Your task to perform on an android device: Search for logitech g pro on bestbuy, select the first entry, add it to the cart, then select checkout. Image 0: 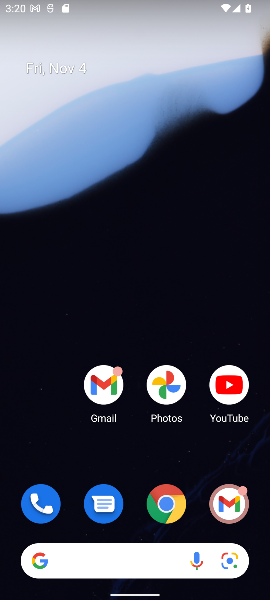
Step 0: click (166, 509)
Your task to perform on an android device: Search for logitech g pro on bestbuy, select the first entry, add it to the cart, then select checkout. Image 1: 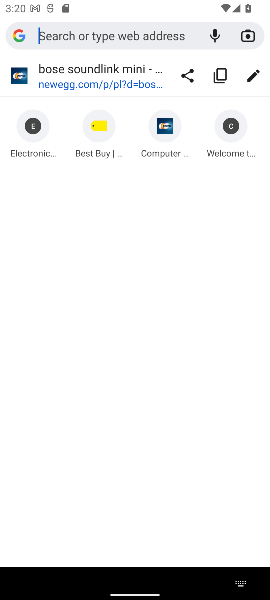
Step 1: click (102, 132)
Your task to perform on an android device: Search for logitech g pro on bestbuy, select the first entry, add it to the cart, then select checkout. Image 2: 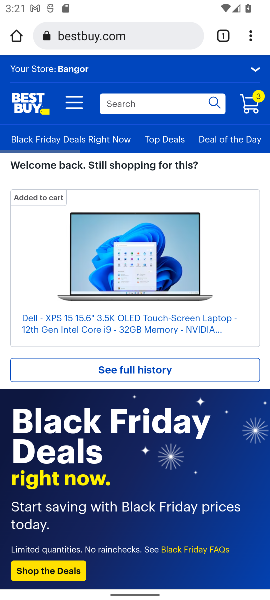
Step 2: click (140, 103)
Your task to perform on an android device: Search for logitech g pro on bestbuy, select the first entry, add it to the cart, then select checkout. Image 3: 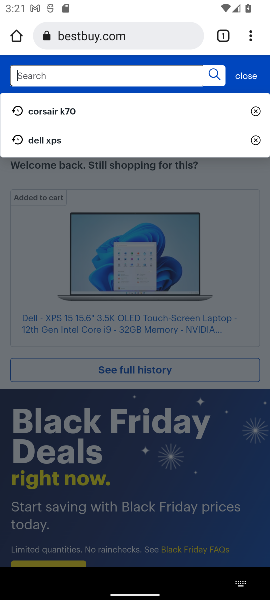
Step 3: type "logitech g pro"
Your task to perform on an android device: Search for logitech g pro on bestbuy, select the first entry, add it to the cart, then select checkout. Image 4: 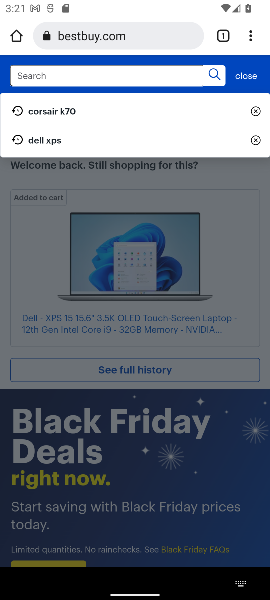
Step 4: type ""
Your task to perform on an android device: Search for logitech g pro on bestbuy, select the first entry, add it to the cart, then select checkout. Image 5: 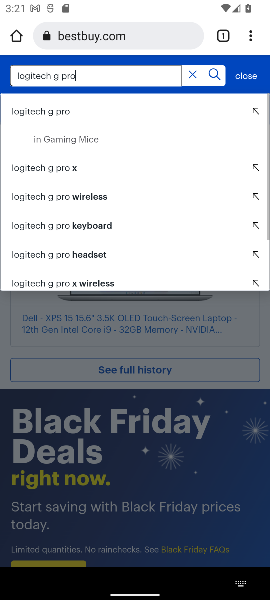
Step 5: click (30, 114)
Your task to perform on an android device: Search for logitech g pro on bestbuy, select the first entry, add it to the cart, then select checkout. Image 6: 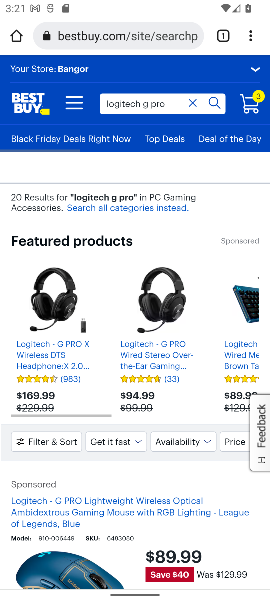
Step 6: drag from (111, 409) to (134, 203)
Your task to perform on an android device: Search for logitech g pro on bestbuy, select the first entry, add it to the cart, then select checkout. Image 7: 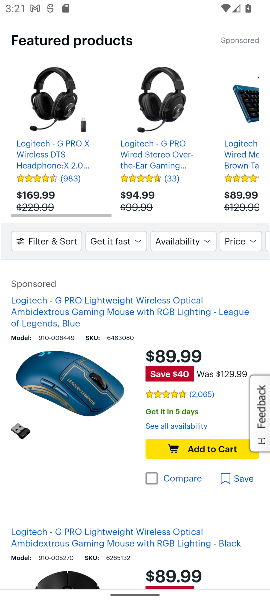
Step 7: click (76, 382)
Your task to perform on an android device: Search for logitech g pro on bestbuy, select the first entry, add it to the cart, then select checkout. Image 8: 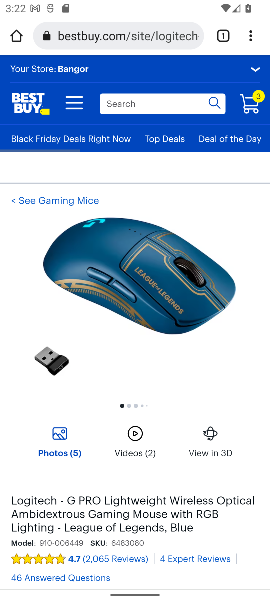
Step 8: drag from (144, 468) to (151, 242)
Your task to perform on an android device: Search for logitech g pro on bestbuy, select the first entry, add it to the cart, then select checkout. Image 9: 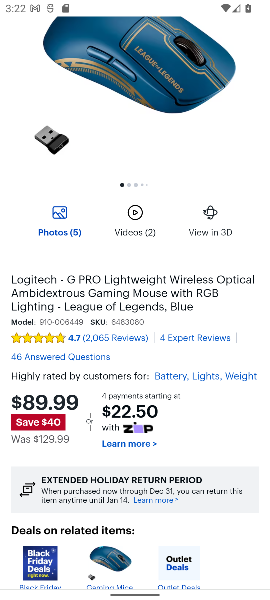
Step 9: drag from (145, 461) to (140, 256)
Your task to perform on an android device: Search for logitech g pro on bestbuy, select the first entry, add it to the cart, then select checkout. Image 10: 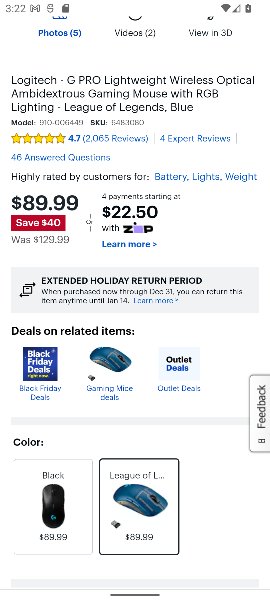
Step 10: drag from (119, 462) to (111, 248)
Your task to perform on an android device: Search for logitech g pro on bestbuy, select the first entry, add it to the cart, then select checkout. Image 11: 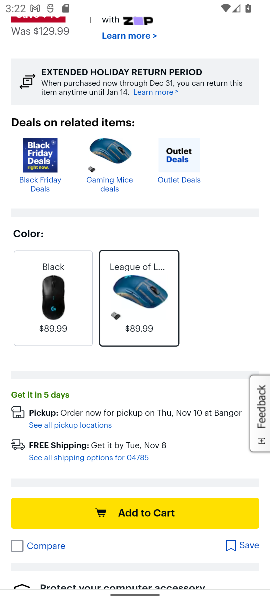
Step 11: click (117, 514)
Your task to perform on an android device: Search for logitech g pro on bestbuy, select the first entry, add it to the cart, then select checkout. Image 12: 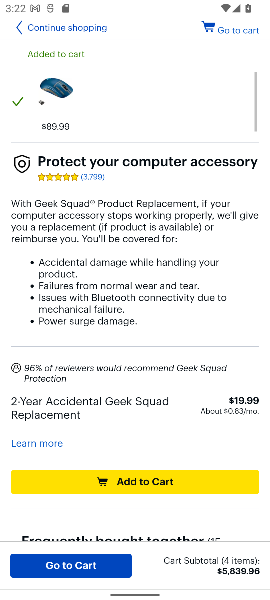
Step 12: click (235, 33)
Your task to perform on an android device: Search for logitech g pro on bestbuy, select the first entry, add it to the cart, then select checkout. Image 13: 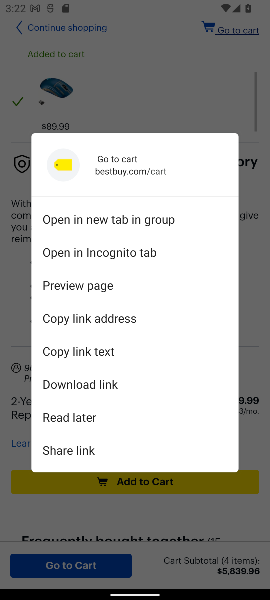
Step 13: click (231, 36)
Your task to perform on an android device: Search for logitech g pro on bestbuy, select the first entry, add it to the cart, then select checkout. Image 14: 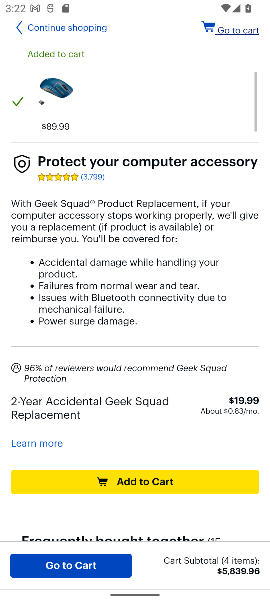
Step 14: click (231, 34)
Your task to perform on an android device: Search for logitech g pro on bestbuy, select the first entry, add it to the cart, then select checkout. Image 15: 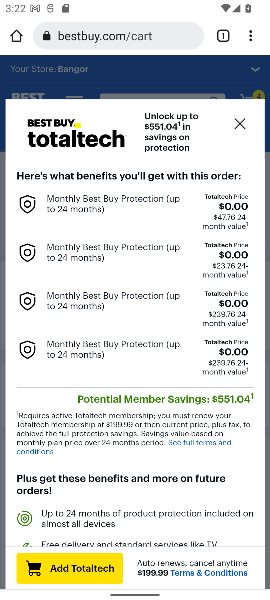
Step 15: click (243, 125)
Your task to perform on an android device: Search for logitech g pro on bestbuy, select the first entry, add it to the cart, then select checkout. Image 16: 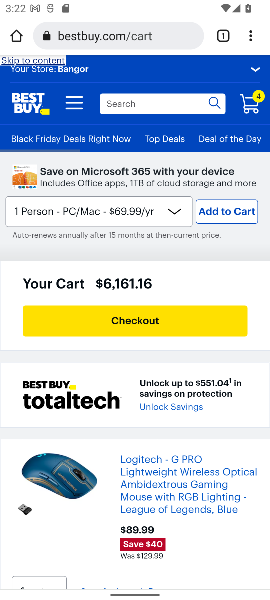
Step 16: click (93, 297)
Your task to perform on an android device: Search for logitech g pro on bestbuy, select the first entry, add it to the cart, then select checkout. Image 17: 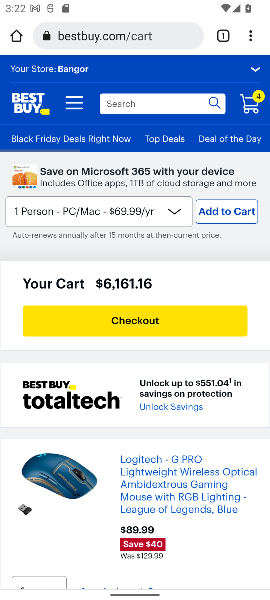
Step 17: click (95, 317)
Your task to perform on an android device: Search for logitech g pro on bestbuy, select the first entry, add it to the cart, then select checkout. Image 18: 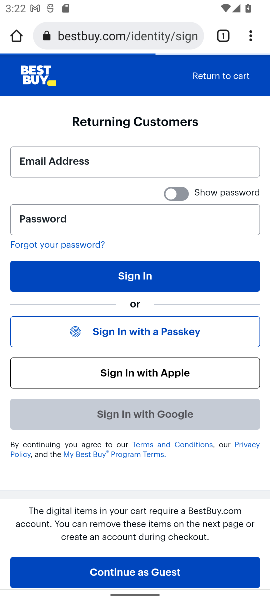
Step 18: task complete